Your task to perform on an android device: Go to notification settings Image 0: 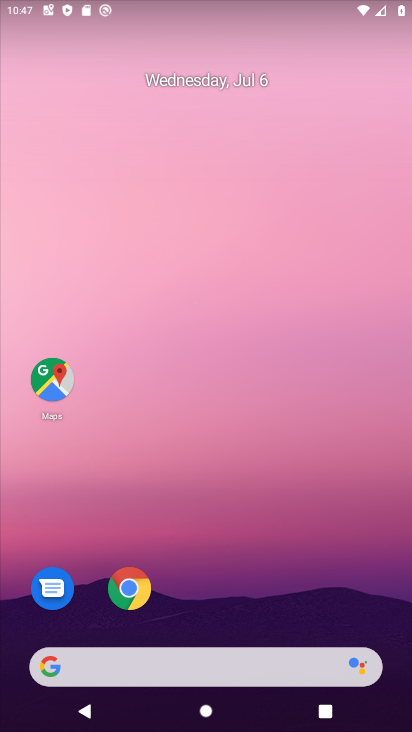
Step 0: drag from (225, 635) to (253, 238)
Your task to perform on an android device: Go to notification settings Image 1: 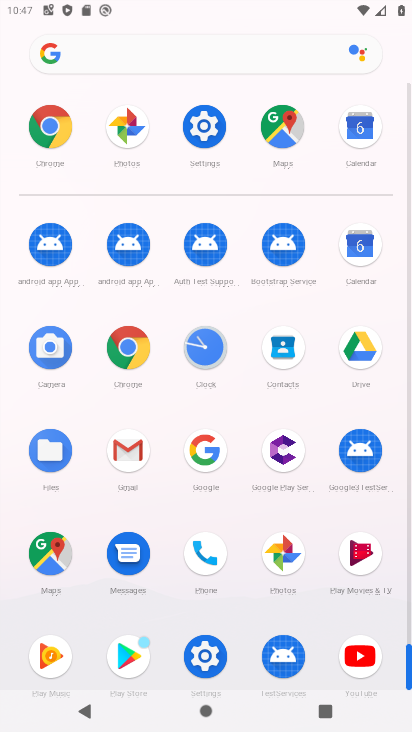
Step 1: click (210, 116)
Your task to perform on an android device: Go to notification settings Image 2: 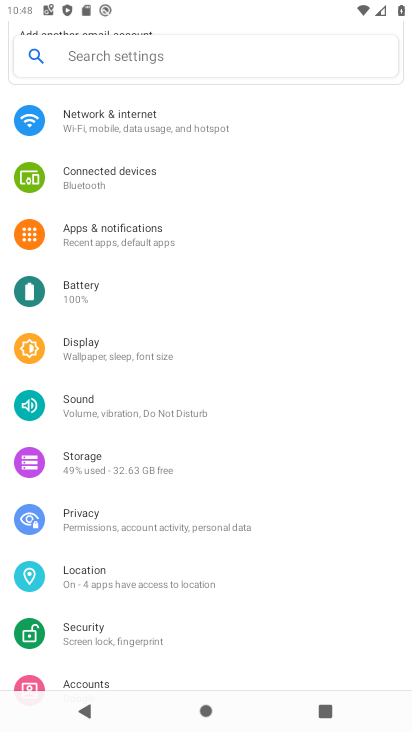
Step 2: click (150, 244)
Your task to perform on an android device: Go to notification settings Image 3: 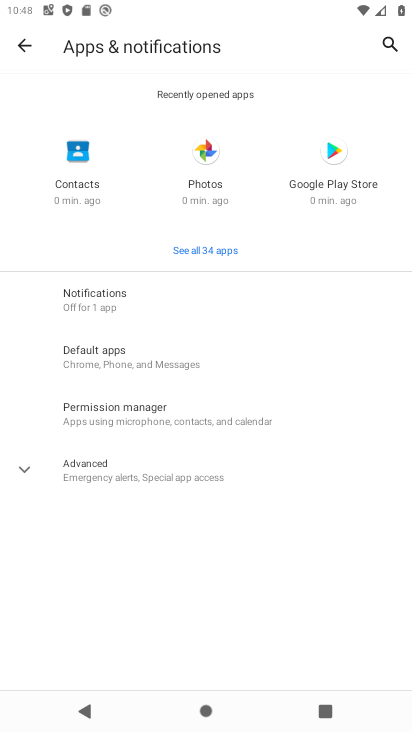
Step 3: click (131, 300)
Your task to perform on an android device: Go to notification settings Image 4: 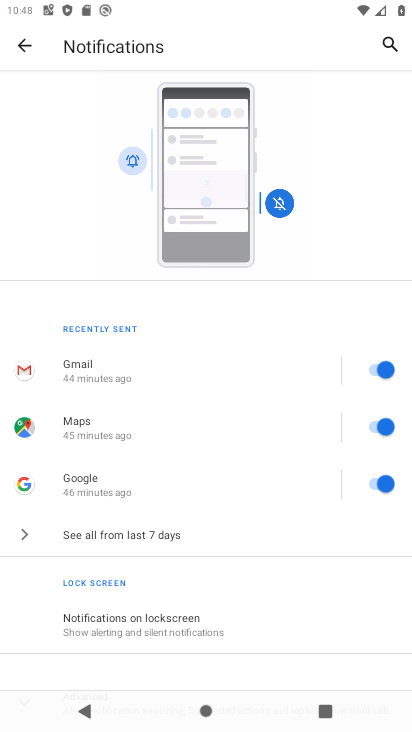
Step 4: drag from (204, 622) to (229, 330)
Your task to perform on an android device: Go to notification settings Image 5: 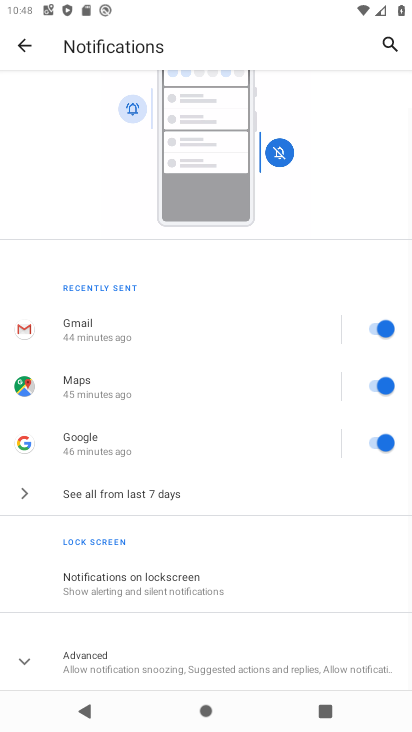
Step 5: click (123, 491)
Your task to perform on an android device: Go to notification settings Image 6: 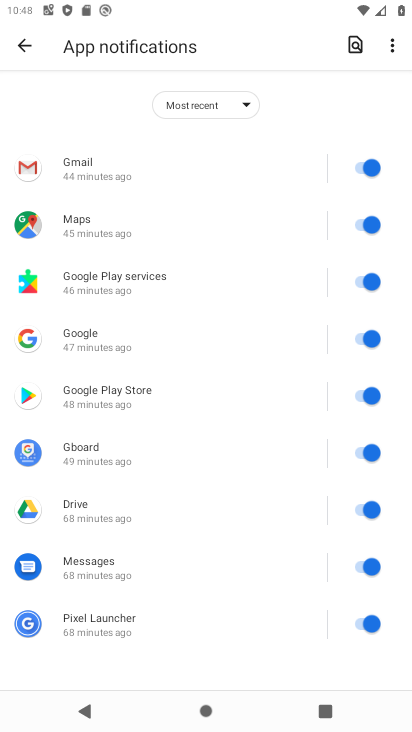
Step 6: task complete